Your task to perform on an android device: open sync settings in chrome Image 0: 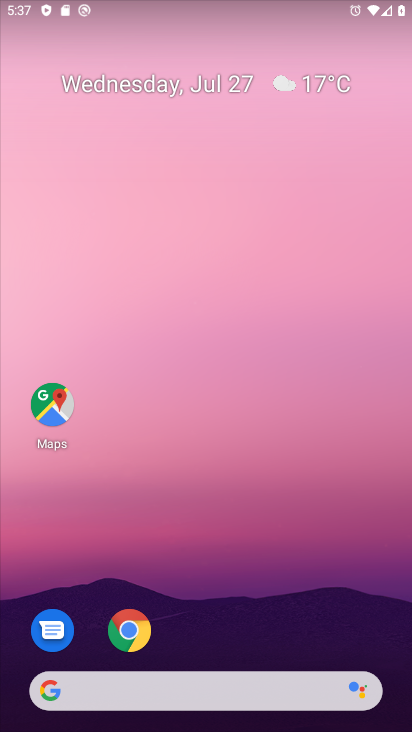
Step 0: press home button
Your task to perform on an android device: open sync settings in chrome Image 1: 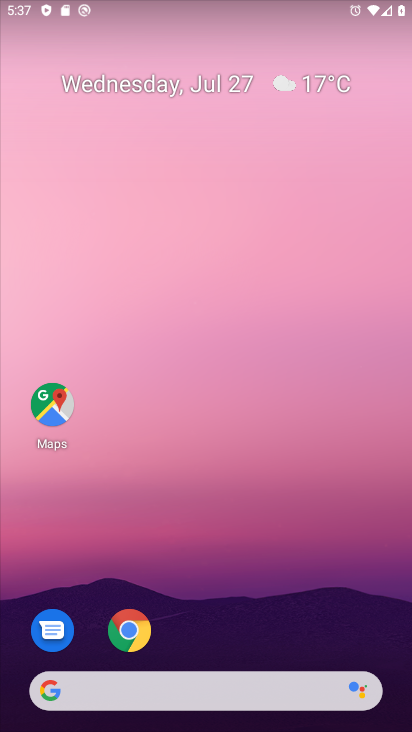
Step 1: click (132, 620)
Your task to perform on an android device: open sync settings in chrome Image 2: 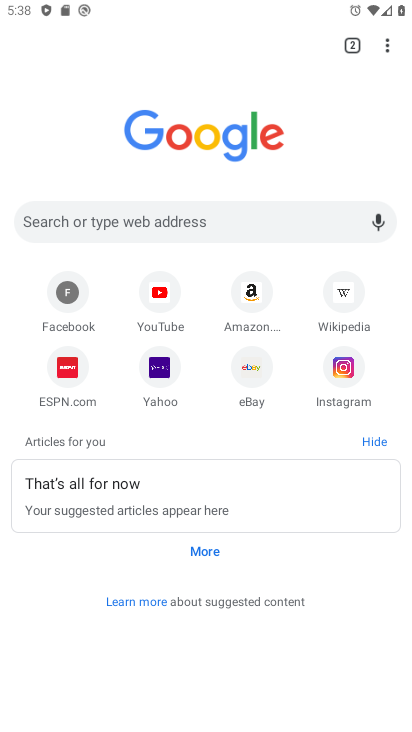
Step 2: click (384, 39)
Your task to perform on an android device: open sync settings in chrome Image 3: 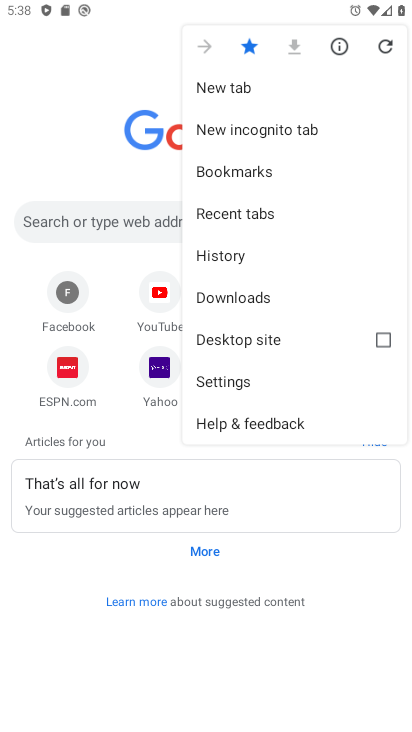
Step 3: click (231, 376)
Your task to perform on an android device: open sync settings in chrome Image 4: 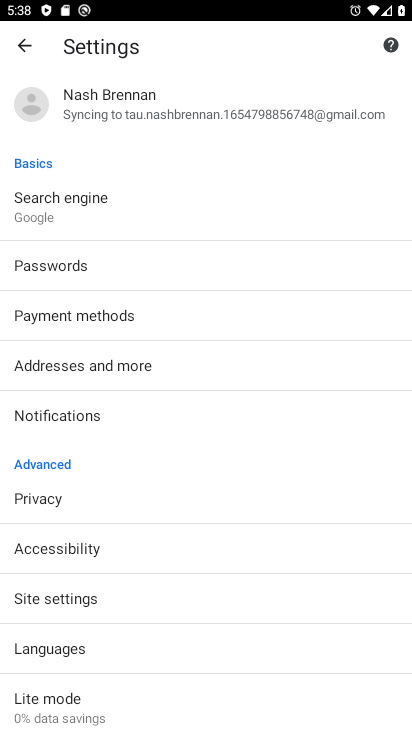
Step 4: click (140, 108)
Your task to perform on an android device: open sync settings in chrome Image 5: 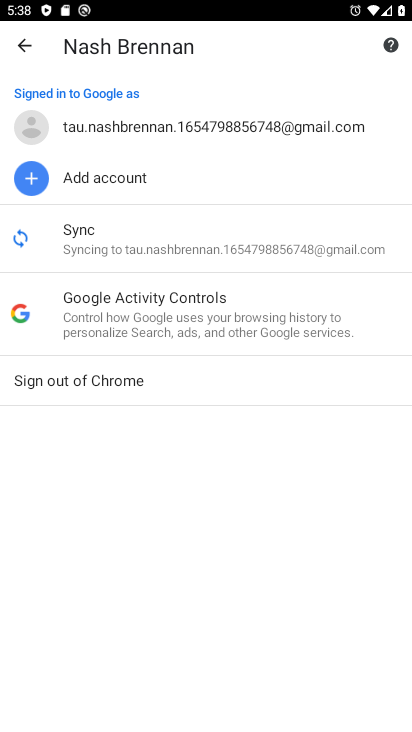
Step 5: click (106, 223)
Your task to perform on an android device: open sync settings in chrome Image 6: 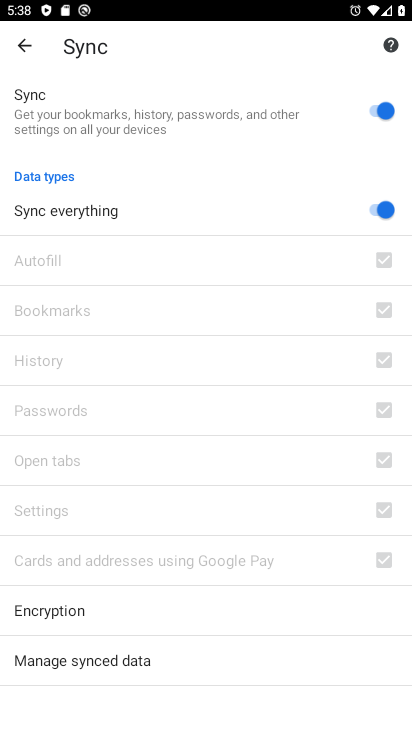
Step 6: task complete